Your task to perform on an android device: move an email to a new category in the gmail app Image 0: 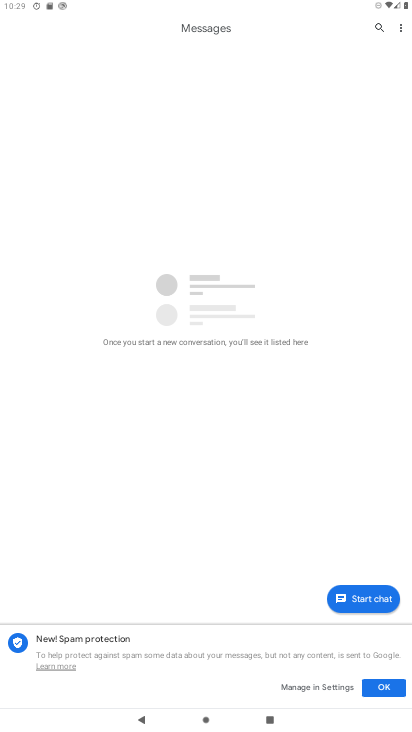
Step 0: press home button
Your task to perform on an android device: move an email to a new category in the gmail app Image 1: 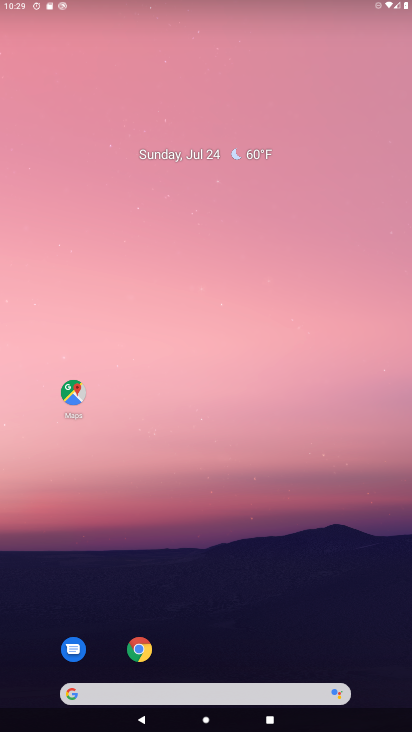
Step 1: drag from (254, 347) to (232, 43)
Your task to perform on an android device: move an email to a new category in the gmail app Image 2: 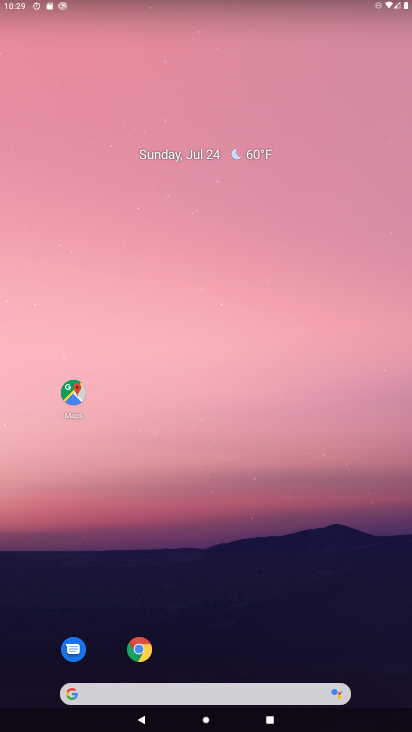
Step 2: drag from (263, 523) to (212, 21)
Your task to perform on an android device: move an email to a new category in the gmail app Image 3: 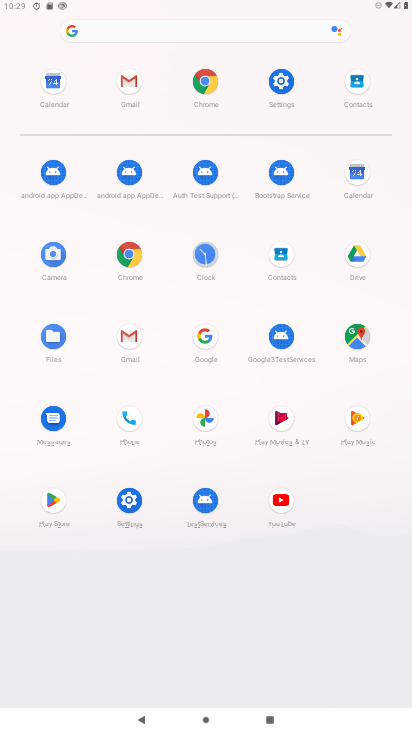
Step 3: click (128, 88)
Your task to perform on an android device: move an email to a new category in the gmail app Image 4: 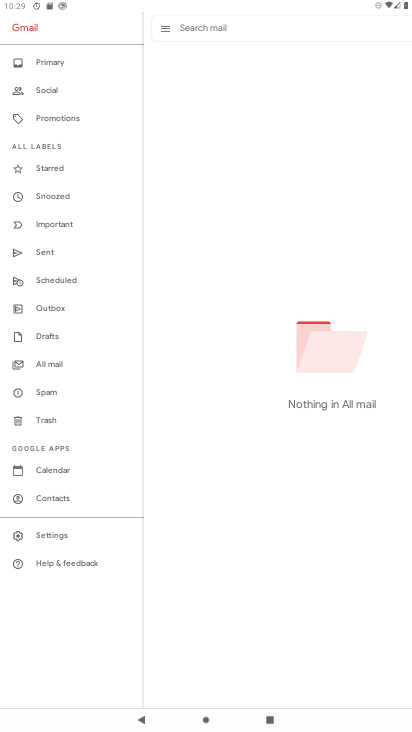
Step 4: click (48, 366)
Your task to perform on an android device: move an email to a new category in the gmail app Image 5: 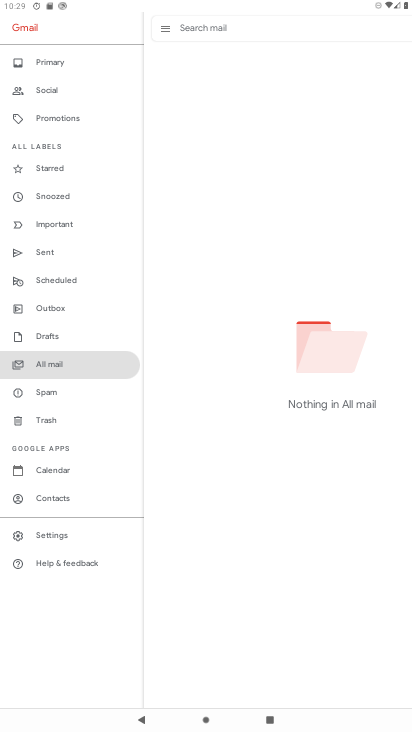
Step 5: task complete